Your task to perform on an android device: change the clock style Image 0: 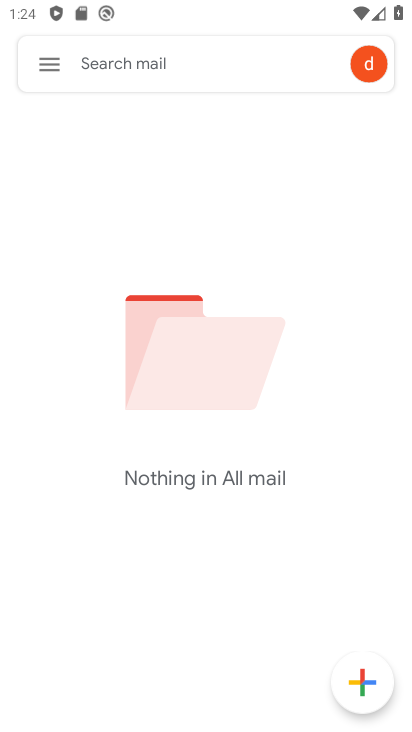
Step 0: press home button
Your task to perform on an android device: change the clock style Image 1: 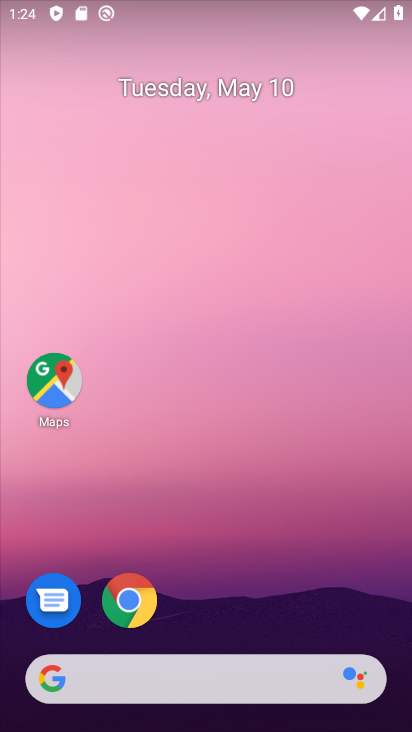
Step 1: drag from (202, 658) to (93, 32)
Your task to perform on an android device: change the clock style Image 2: 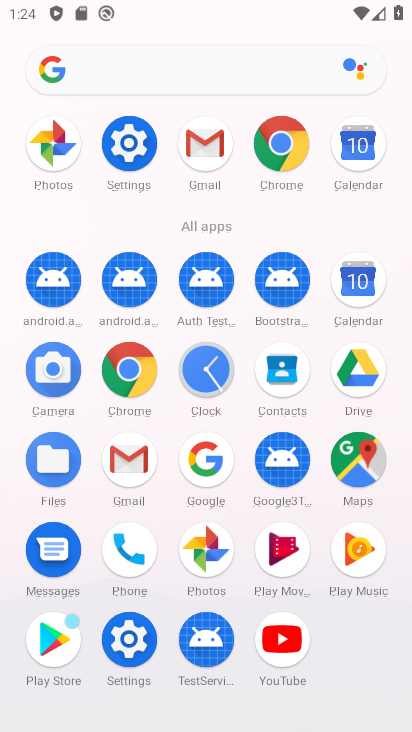
Step 2: click (198, 383)
Your task to perform on an android device: change the clock style Image 3: 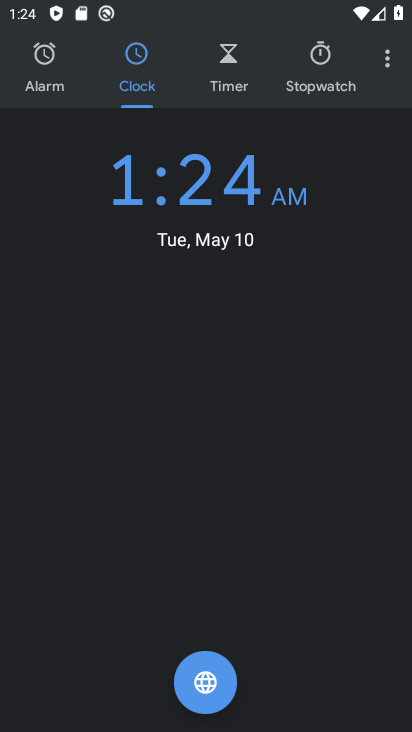
Step 3: click (393, 49)
Your task to perform on an android device: change the clock style Image 4: 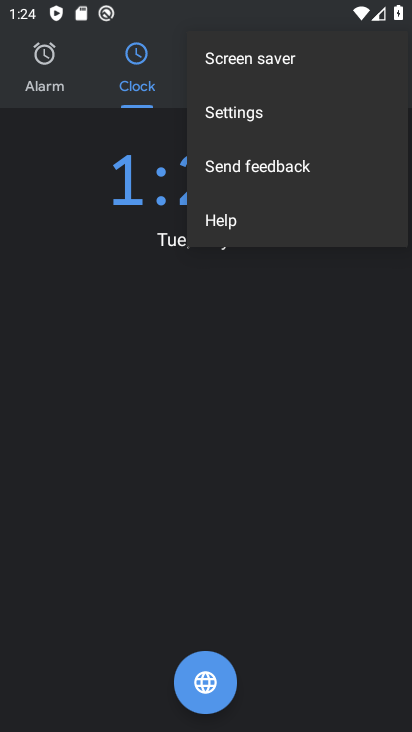
Step 4: click (218, 115)
Your task to perform on an android device: change the clock style Image 5: 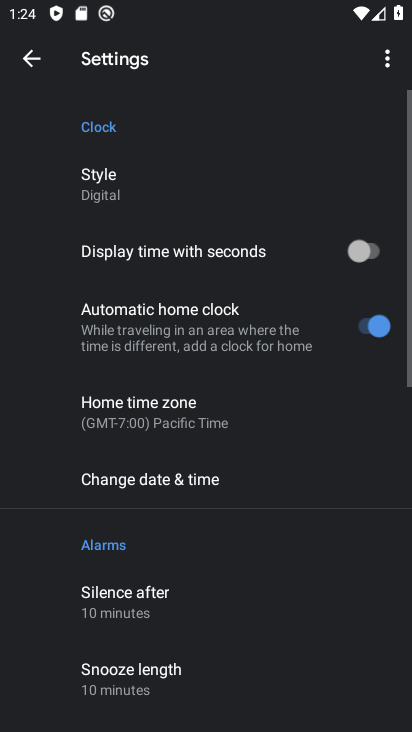
Step 5: click (142, 195)
Your task to perform on an android device: change the clock style Image 6: 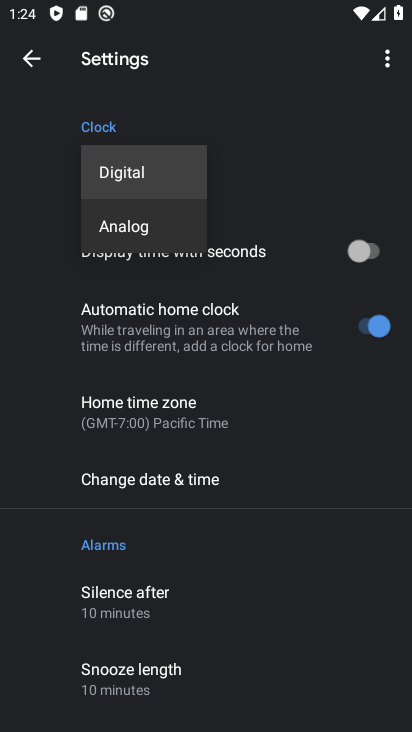
Step 6: click (155, 220)
Your task to perform on an android device: change the clock style Image 7: 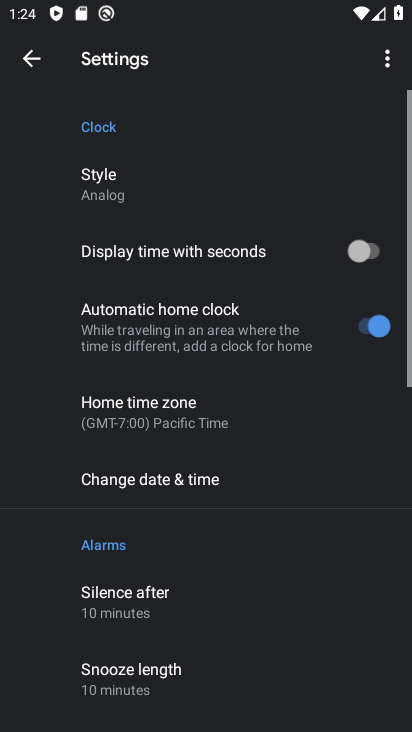
Step 7: task complete